Your task to perform on an android device: Open maps Image 0: 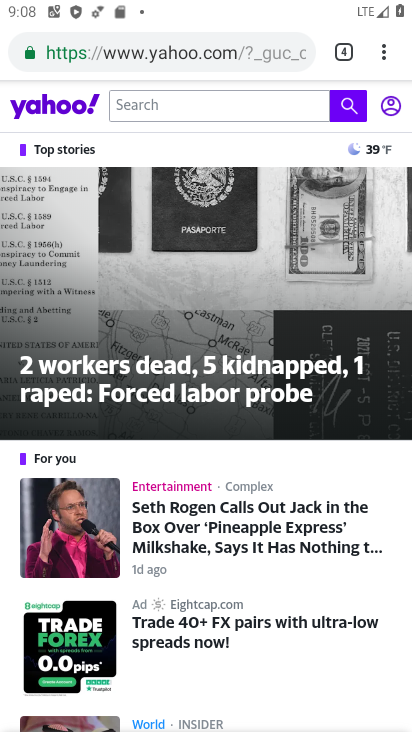
Step 0: press home button
Your task to perform on an android device: Open maps Image 1: 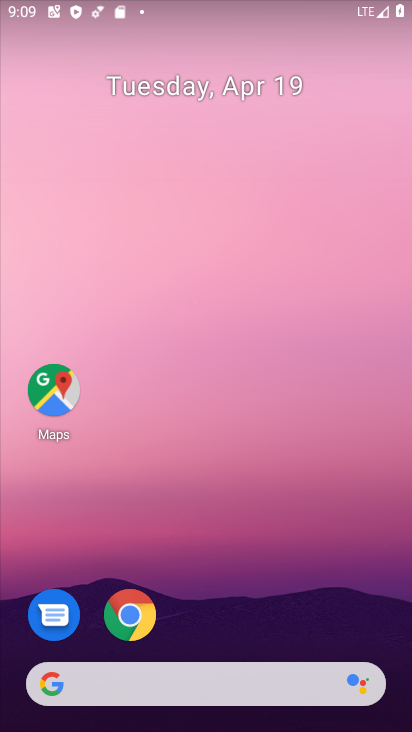
Step 1: click (52, 407)
Your task to perform on an android device: Open maps Image 2: 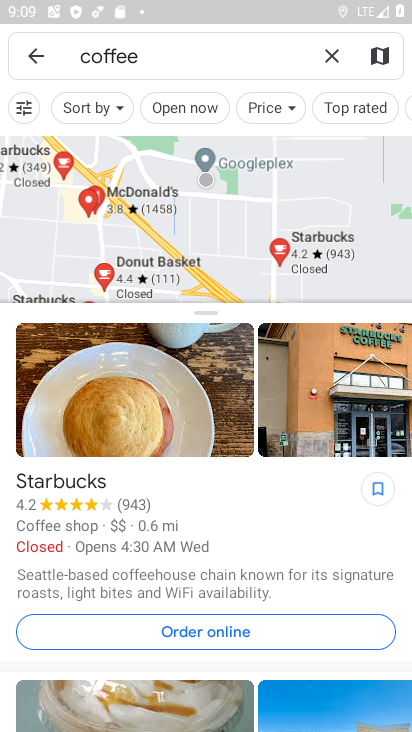
Step 2: task complete